Your task to perform on an android device: search for starred emails in the gmail app Image 0: 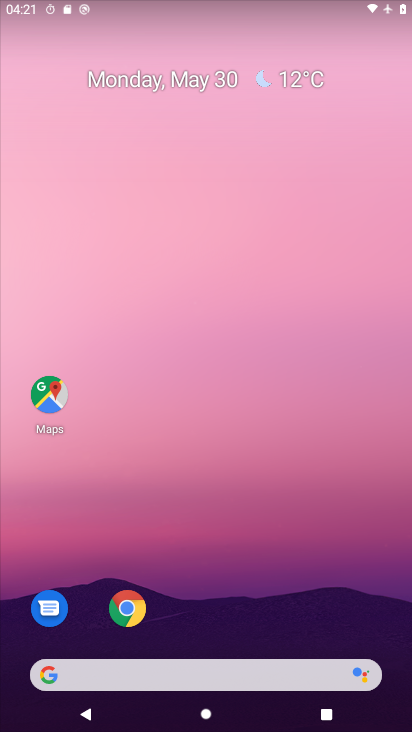
Step 0: drag from (266, 582) to (25, 79)
Your task to perform on an android device: search for starred emails in the gmail app Image 1: 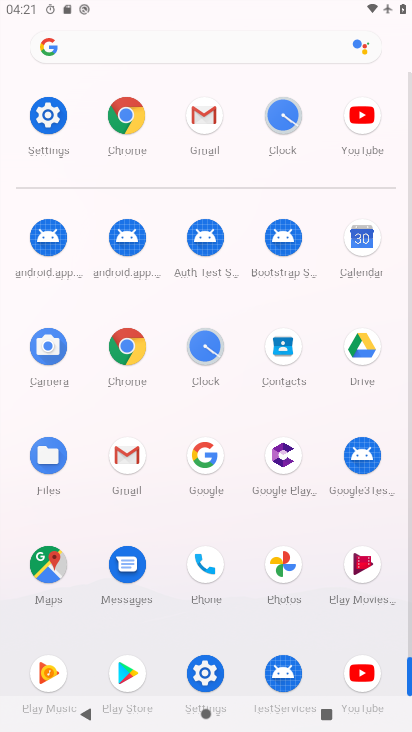
Step 1: click (115, 464)
Your task to perform on an android device: search for starred emails in the gmail app Image 2: 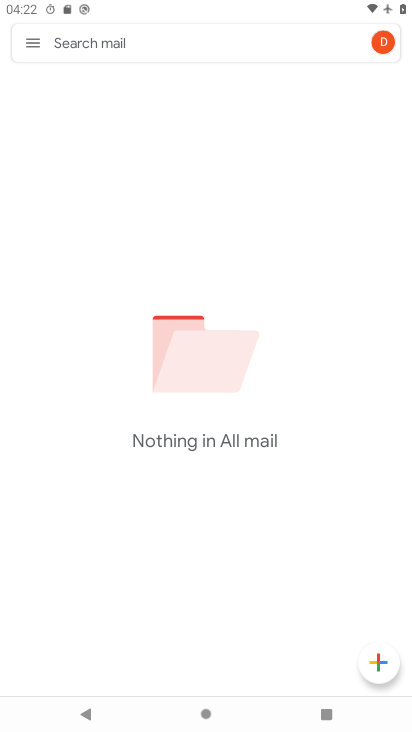
Step 2: click (120, 31)
Your task to perform on an android device: search for starred emails in the gmail app Image 3: 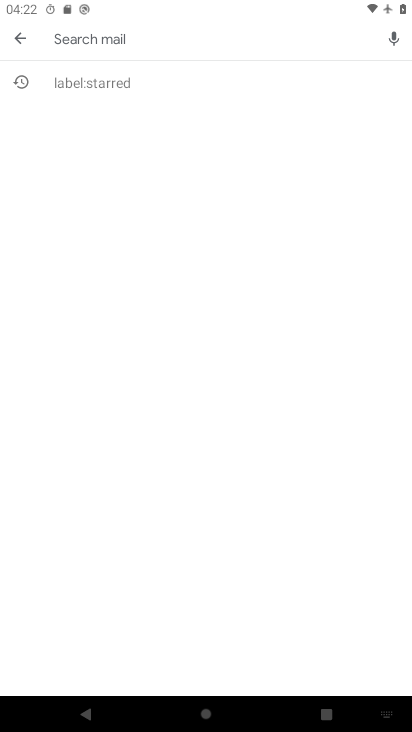
Step 3: click (125, 77)
Your task to perform on an android device: search for starred emails in the gmail app Image 4: 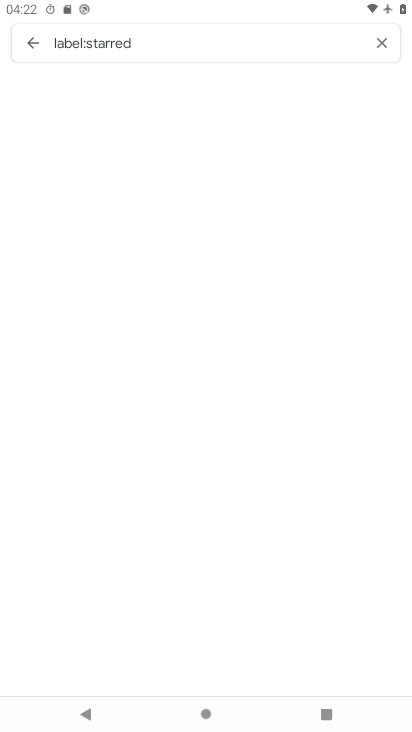
Step 4: task complete